Your task to perform on an android device: move an email to a new category in the gmail app Image 0: 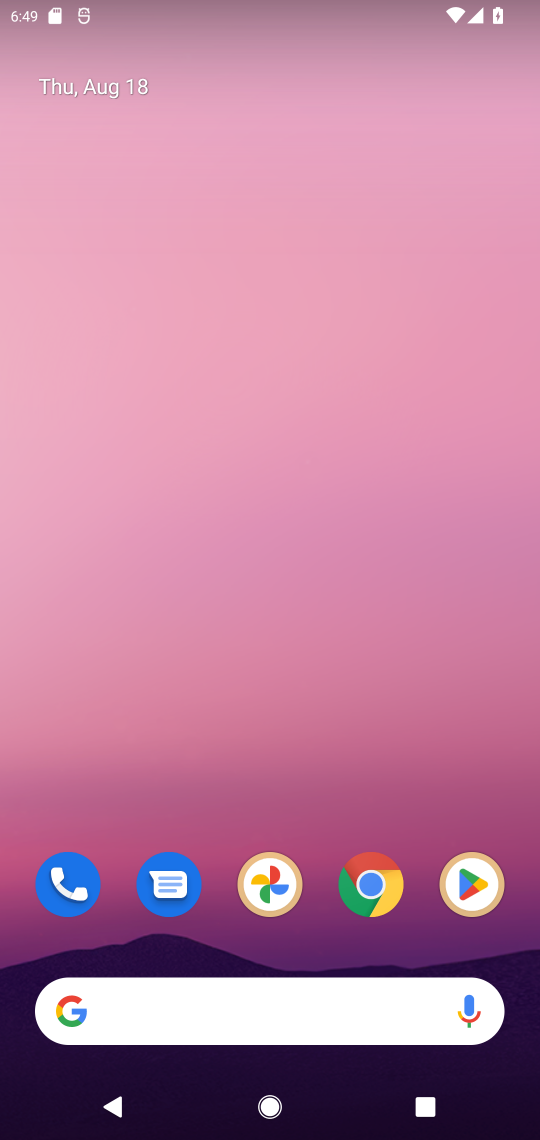
Step 0: drag from (281, 800) to (210, 189)
Your task to perform on an android device: move an email to a new category in the gmail app Image 1: 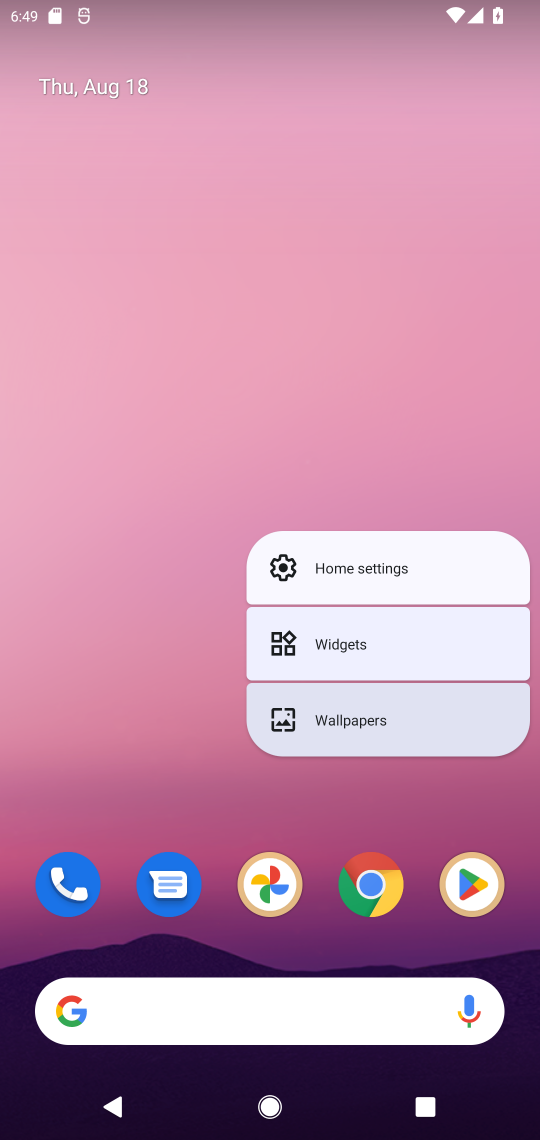
Step 1: click (188, 926)
Your task to perform on an android device: move an email to a new category in the gmail app Image 2: 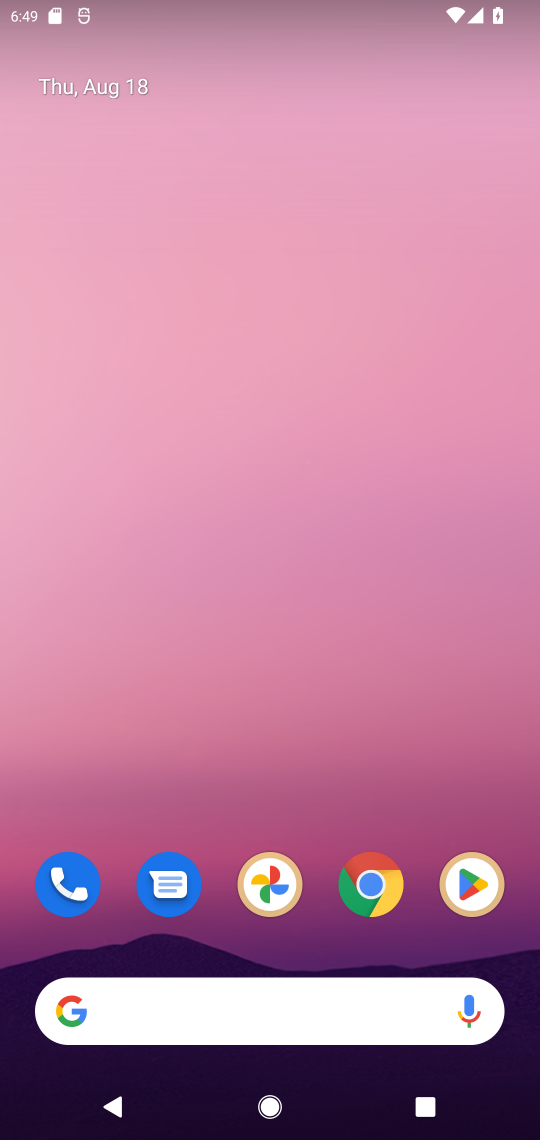
Step 2: drag from (188, 926) to (307, 77)
Your task to perform on an android device: move an email to a new category in the gmail app Image 3: 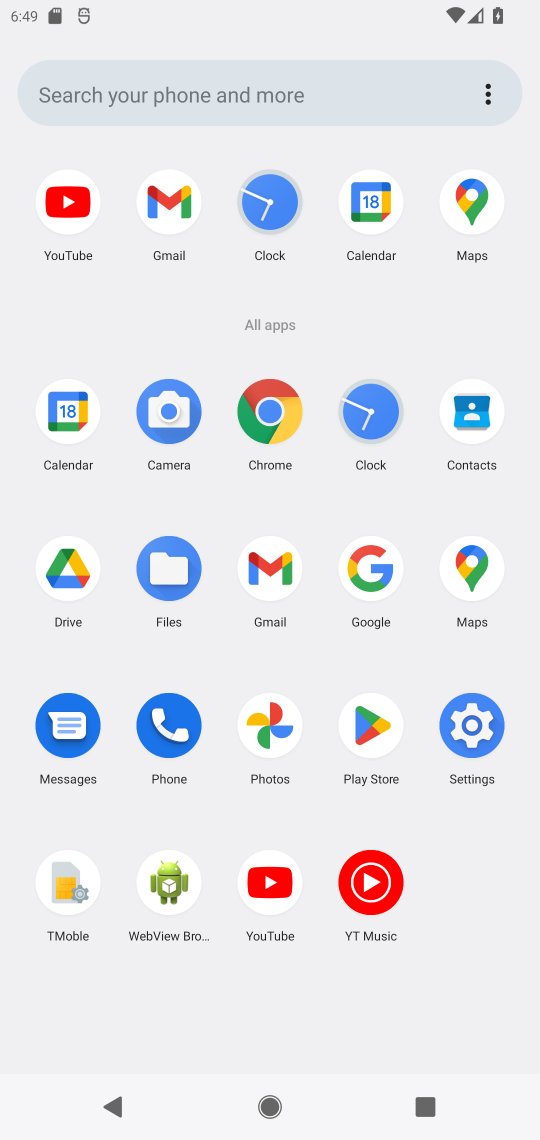
Step 3: click (173, 225)
Your task to perform on an android device: move an email to a new category in the gmail app Image 4: 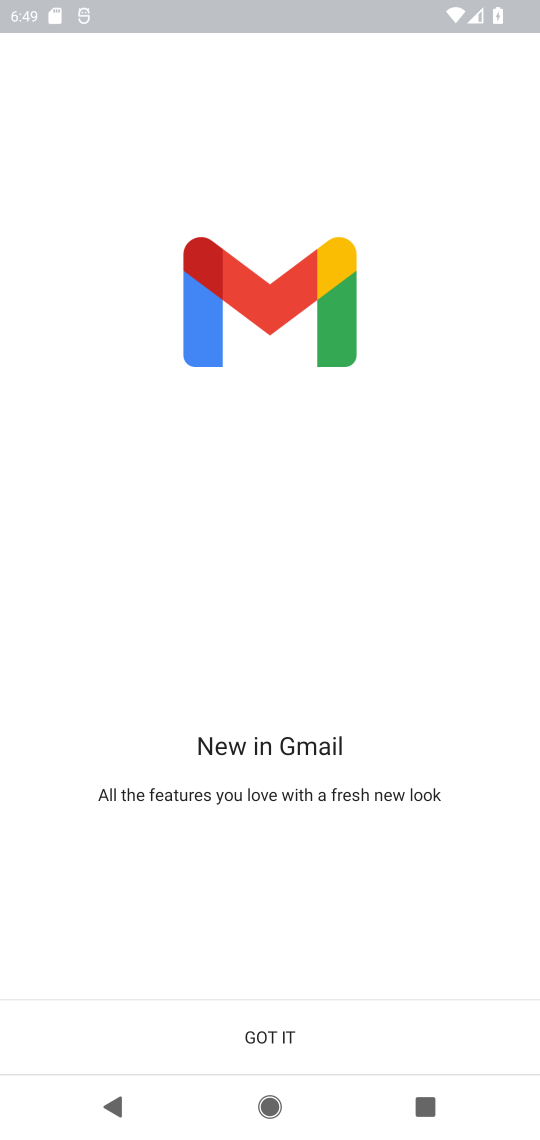
Step 4: click (221, 1035)
Your task to perform on an android device: move an email to a new category in the gmail app Image 5: 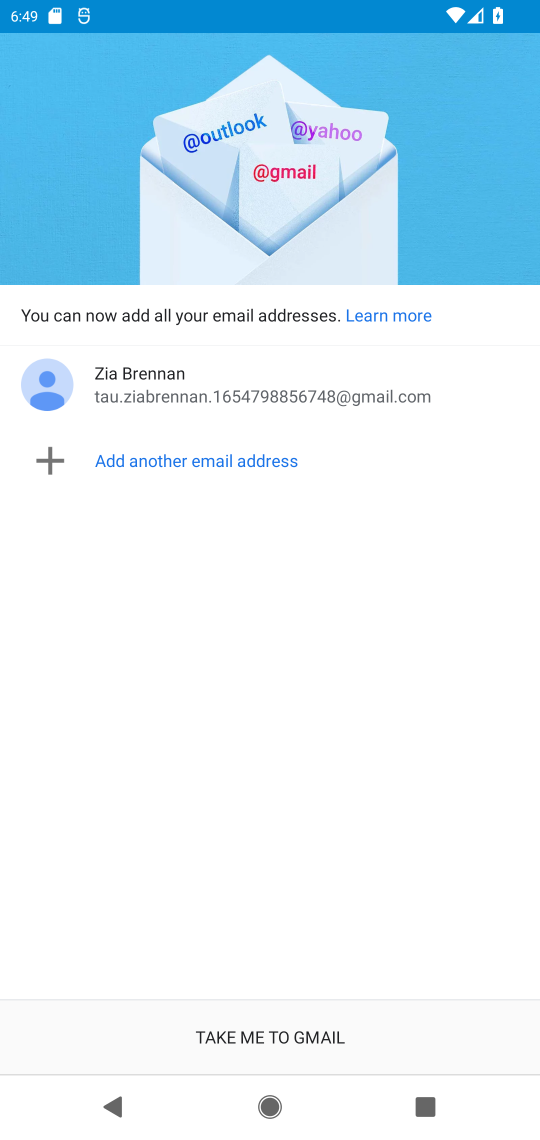
Step 5: click (243, 1036)
Your task to perform on an android device: move an email to a new category in the gmail app Image 6: 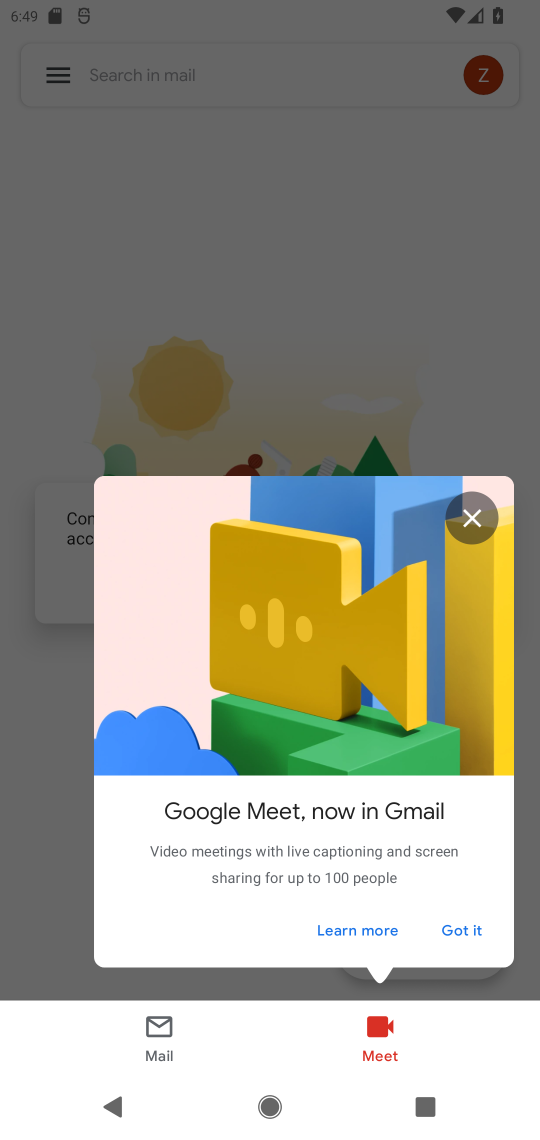
Step 6: click (480, 512)
Your task to perform on an android device: move an email to a new category in the gmail app Image 7: 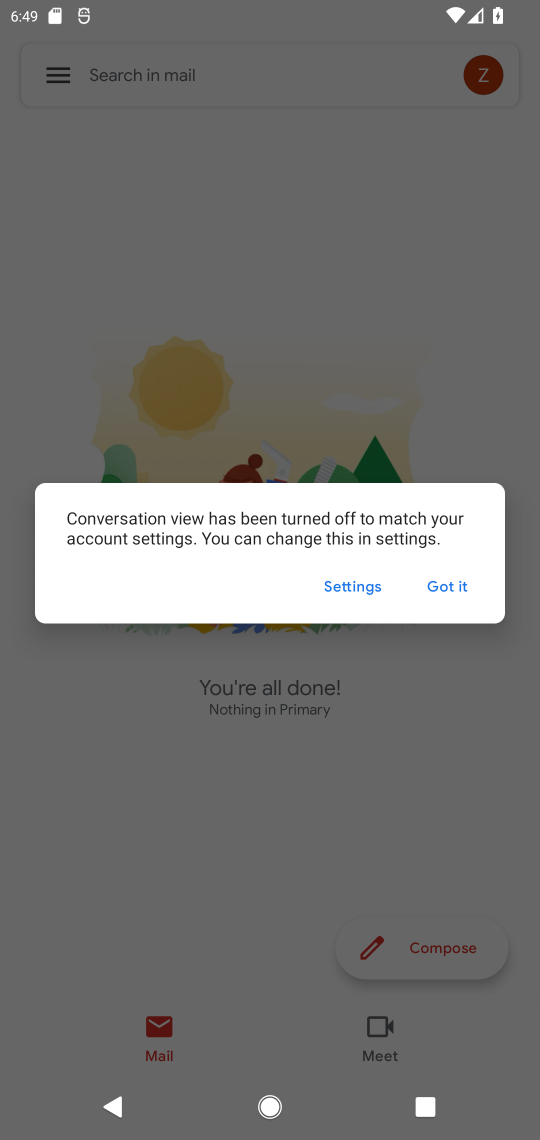
Step 7: click (456, 587)
Your task to perform on an android device: move an email to a new category in the gmail app Image 8: 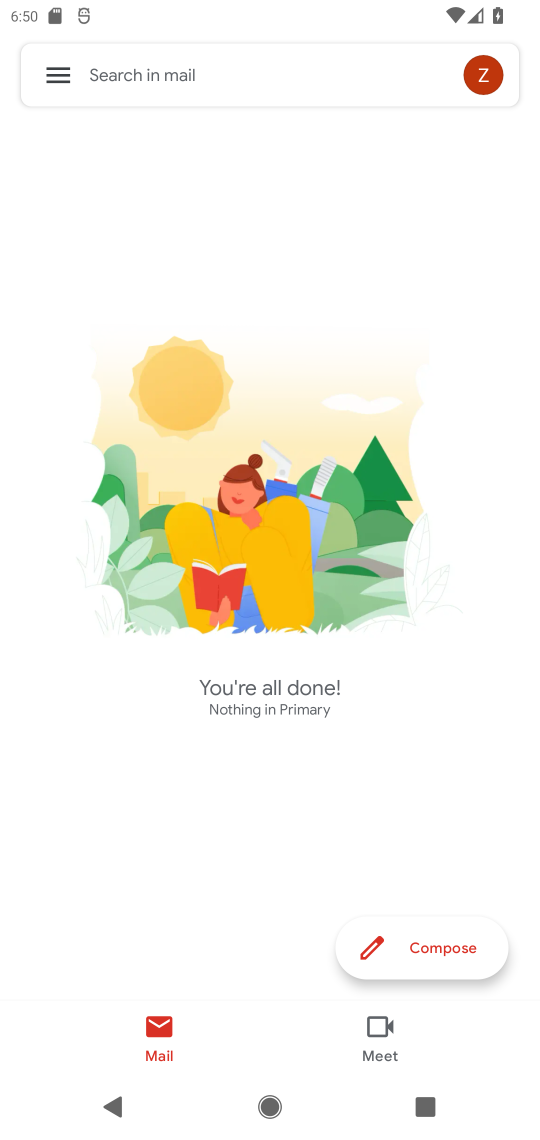
Step 8: click (58, 80)
Your task to perform on an android device: move an email to a new category in the gmail app Image 9: 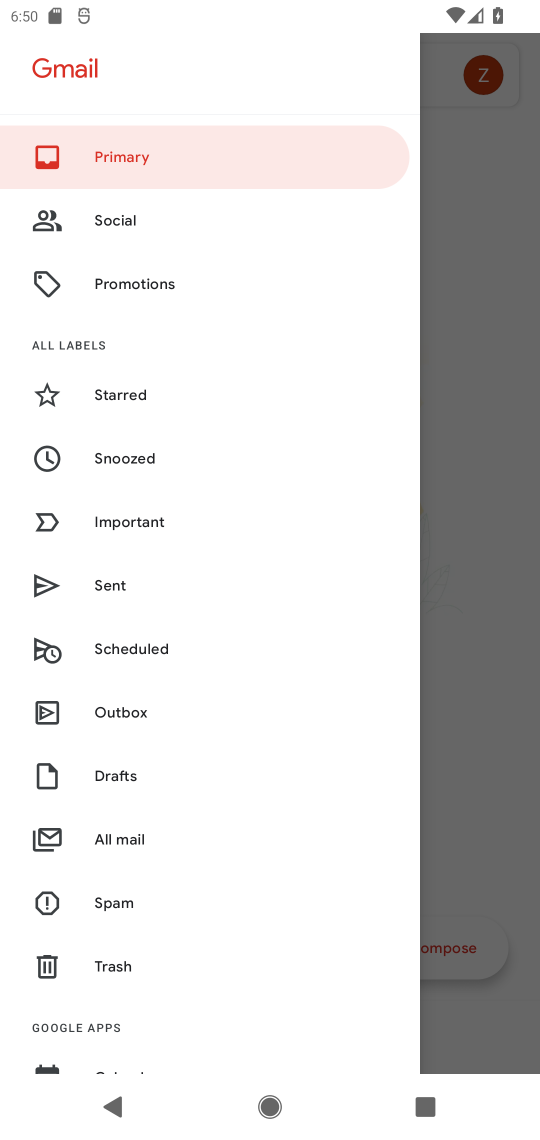
Step 9: drag from (171, 1019) to (239, 236)
Your task to perform on an android device: move an email to a new category in the gmail app Image 10: 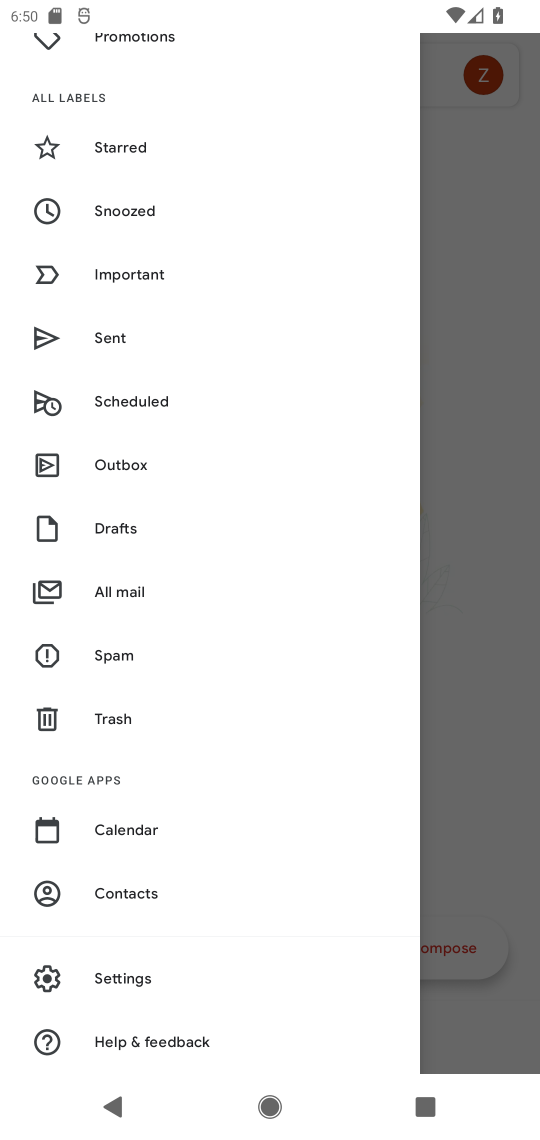
Step 10: drag from (264, 1011) to (462, 123)
Your task to perform on an android device: move an email to a new category in the gmail app Image 11: 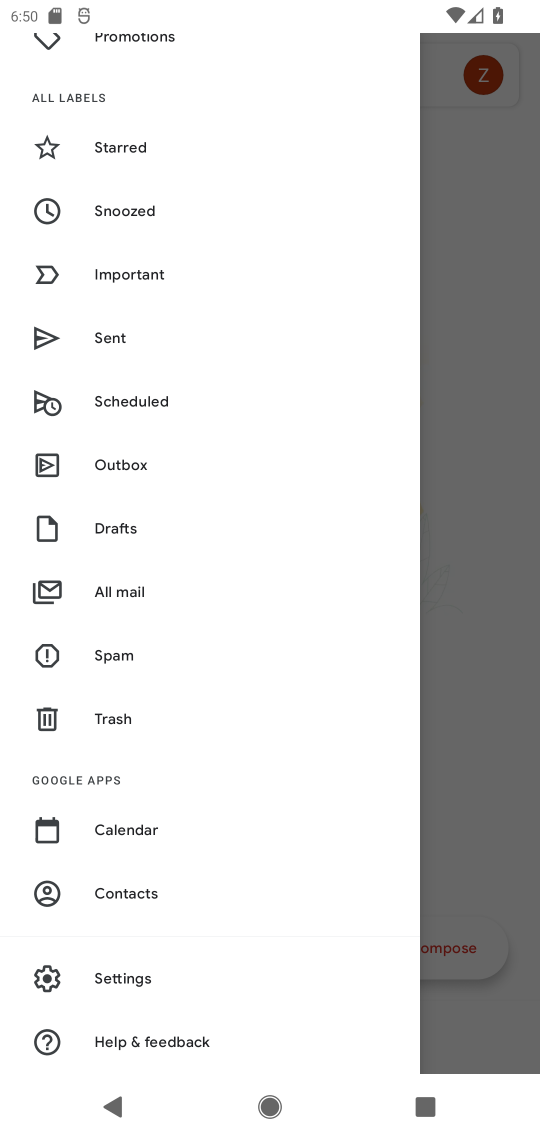
Step 11: click (225, 576)
Your task to perform on an android device: move an email to a new category in the gmail app Image 12: 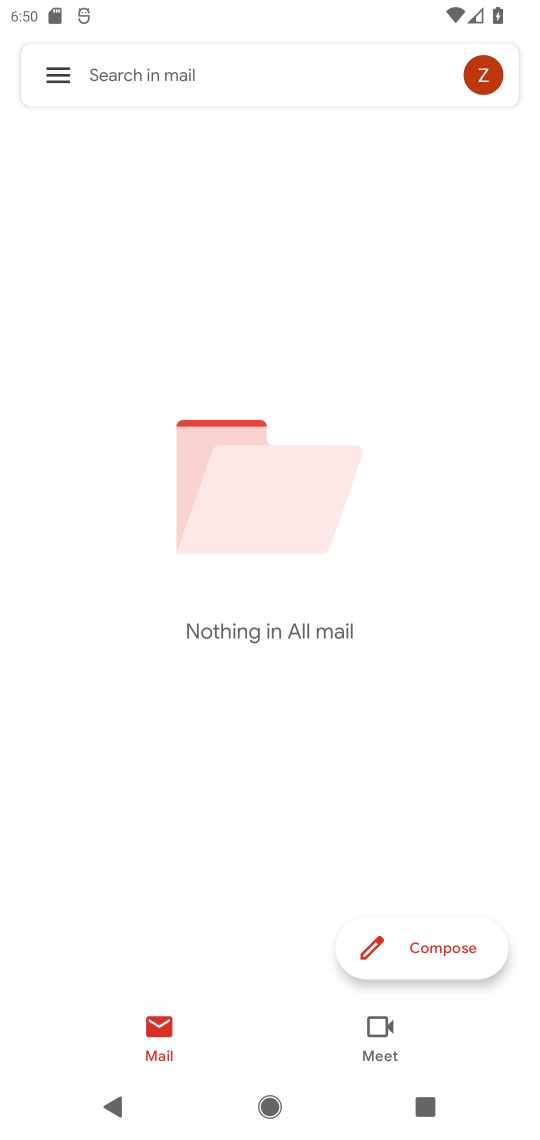
Step 12: task complete